Your task to perform on an android device: Add razer nari to the cart on ebay.com Image 0: 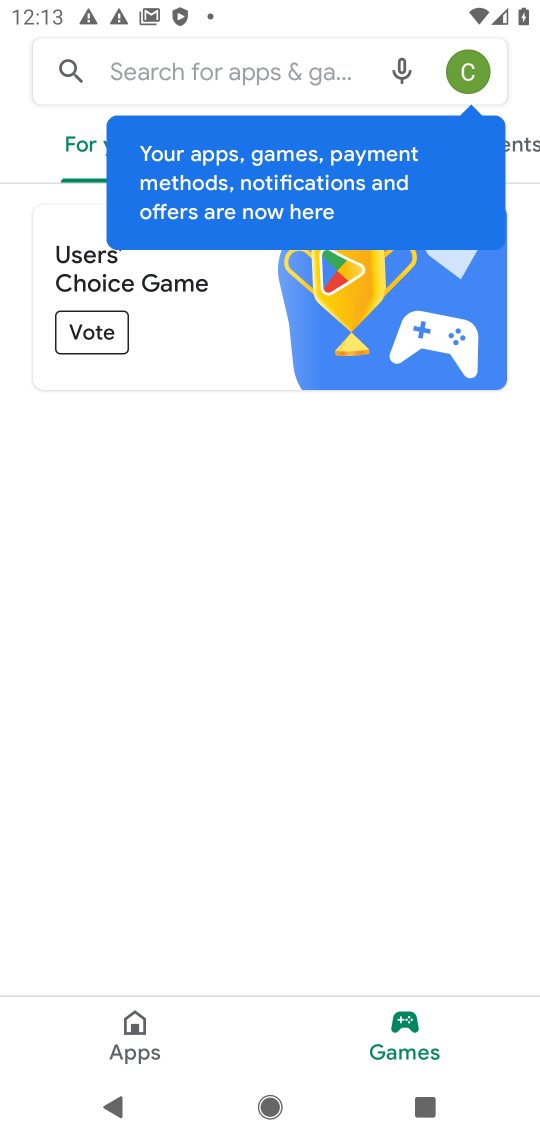
Step 0: task complete